Your task to perform on an android device: open app "ZOOM Cloud Meetings" (install if not already installed) and enter user name: "bauxite@icloud.com" and password: "dim" Image 0: 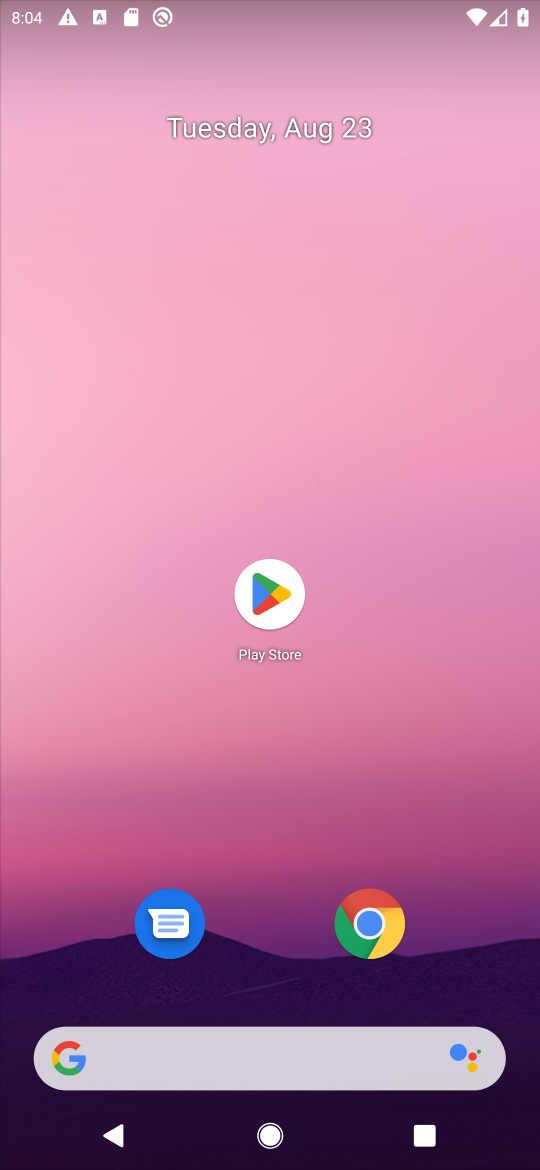
Step 0: click (264, 598)
Your task to perform on an android device: open app "ZOOM Cloud Meetings" (install if not already installed) and enter user name: "bauxite@icloud.com" and password: "dim" Image 1: 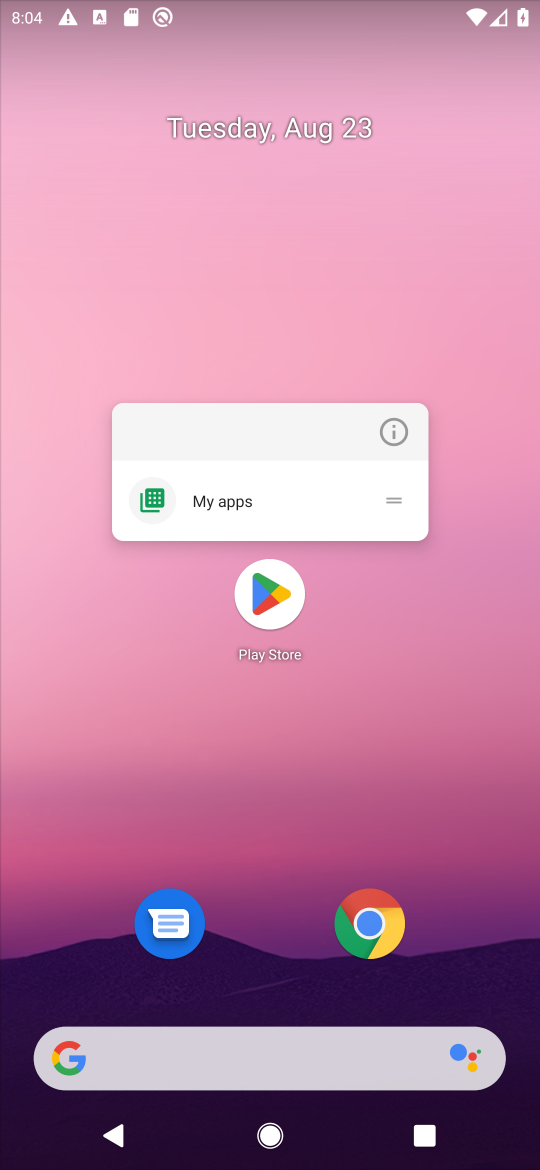
Step 1: click (271, 596)
Your task to perform on an android device: open app "ZOOM Cloud Meetings" (install if not already installed) and enter user name: "bauxite@icloud.com" and password: "dim" Image 2: 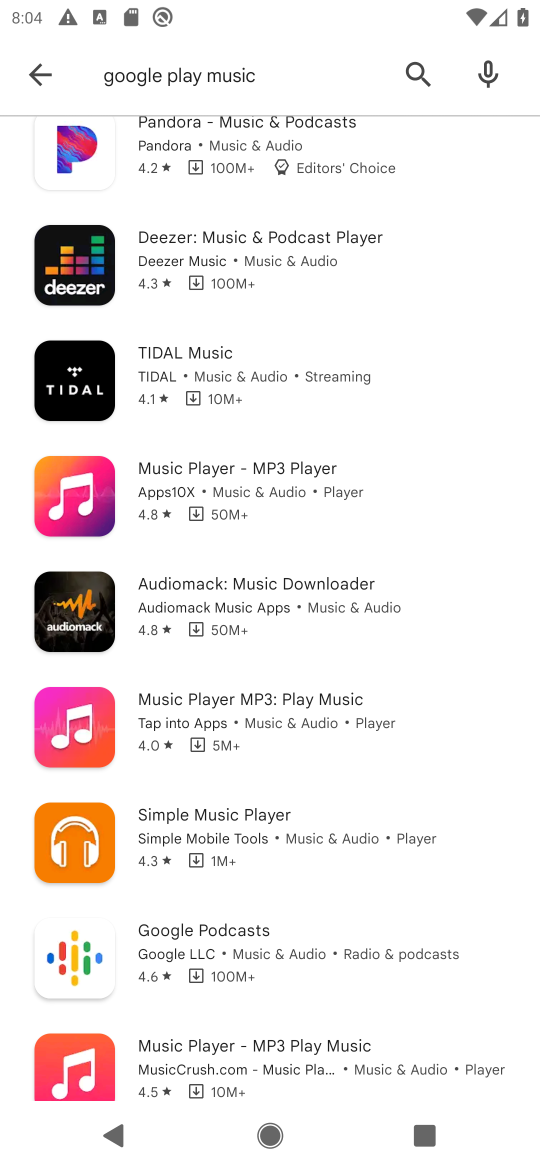
Step 2: click (407, 65)
Your task to perform on an android device: open app "ZOOM Cloud Meetings" (install if not already installed) and enter user name: "bauxite@icloud.com" and password: "dim" Image 3: 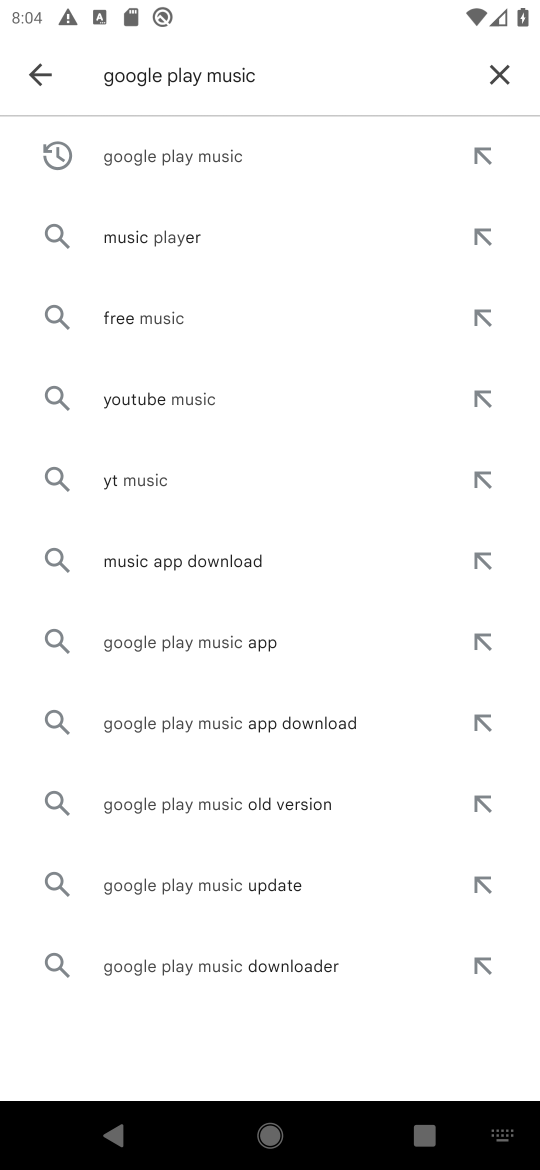
Step 3: click (497, 80)
Your task to perform on an android device: open app "ZOOM Cloud Meetings" (install if not already installed) and enter user name: "bauxite@icloud.com" and password: "dim" Image 4: 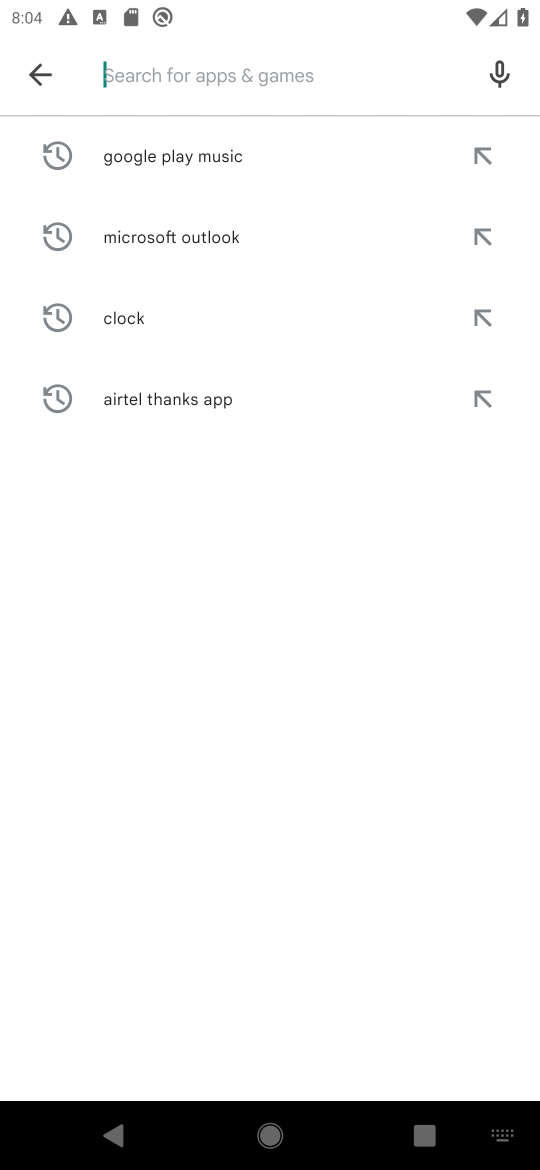
Step 4: type "ZOOM Cloud Meetings"
Your task to perform on an android device: open app "ZOOM Cloud Meetings" (install if not already installed) and enter user name: "bauxite@icloud.com" and password: "dim" Image 5: 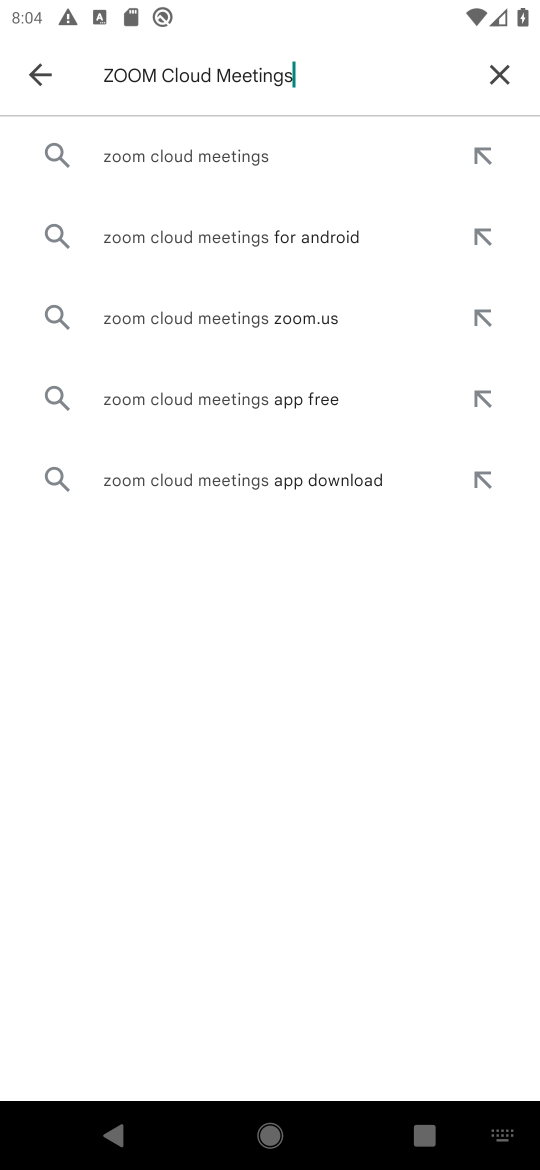
Step 5: click (207, 155)
Your task to perform on an android device: open app "ZOOM Cloud Meetings" (install if not already installed) and enter user name: "bauxite@icloud.com" and password: "dim" Image 6: 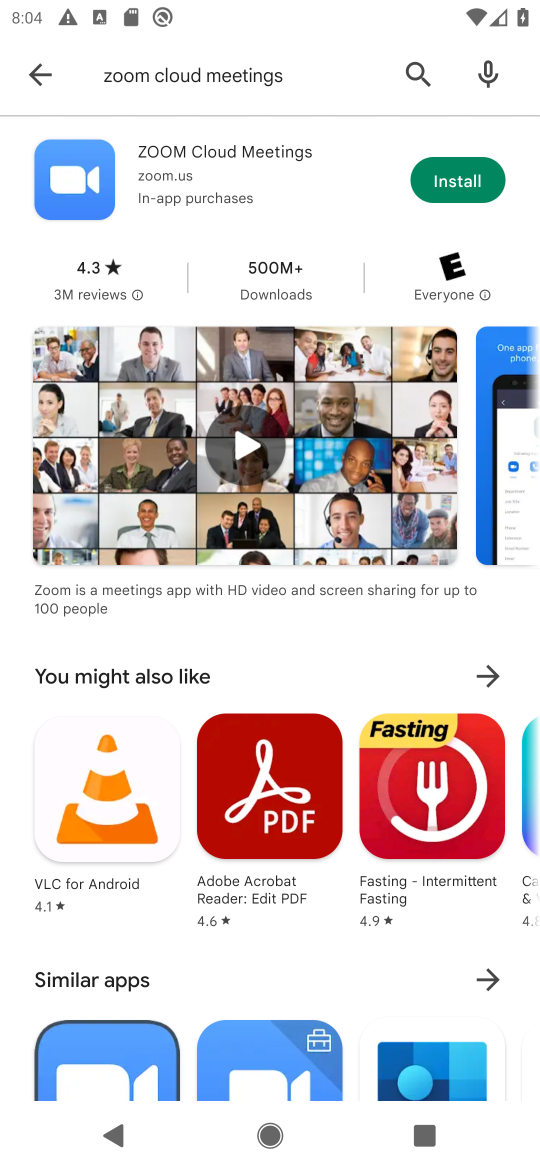
Step 6: click (463, 181)
Your task to perform on an android device: open app "ZOOM Cloud Meetings" (install if not already installed) and enter user name: "bauxite@icloud.com" and password: "dim" Image 7: 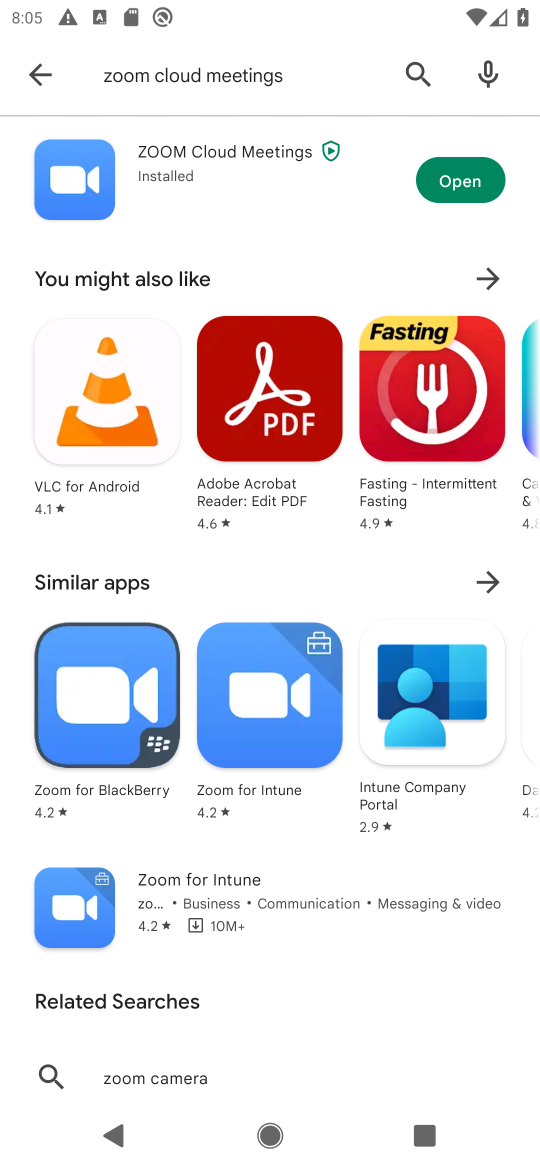
Step 7: click (469, 185)
Your task to perform on an android device: open app "ZOOM Cloud Meetings" (install if not already installed) and enter user name: "bauxite@icloud.com" and password: "dim" Image 8: 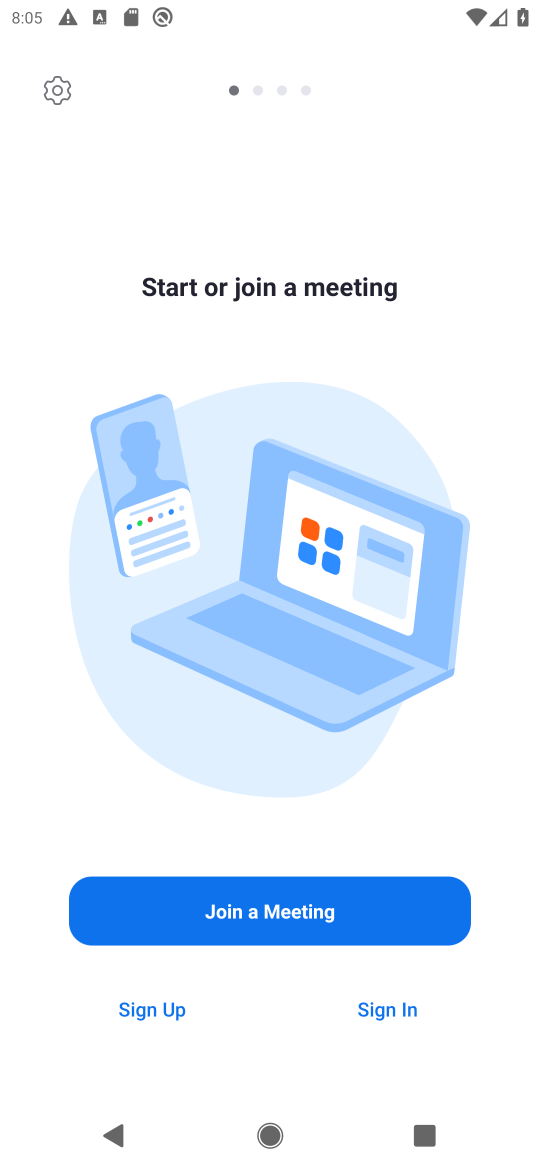
Step 8: click (396, 1000)
Your task to perform on an android device: open app "ZOOM Cloud Meetings" (install if not already installed) and enter user name: "bauxite@icloud.com" and password: "dim" Image 9: 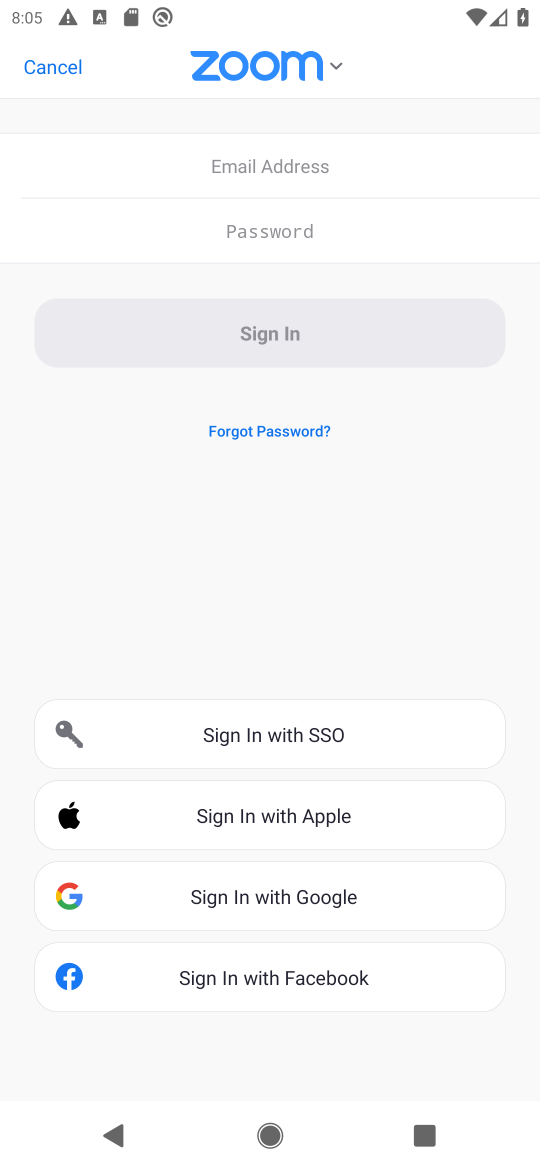
Step 9: click (275, 152)
Your task to perform on an android device: open app "ZOOM Cloud Meetings" (install if not already installed) and enter user name: "bauxite@icloud.com" and password: "dim" Image 10: 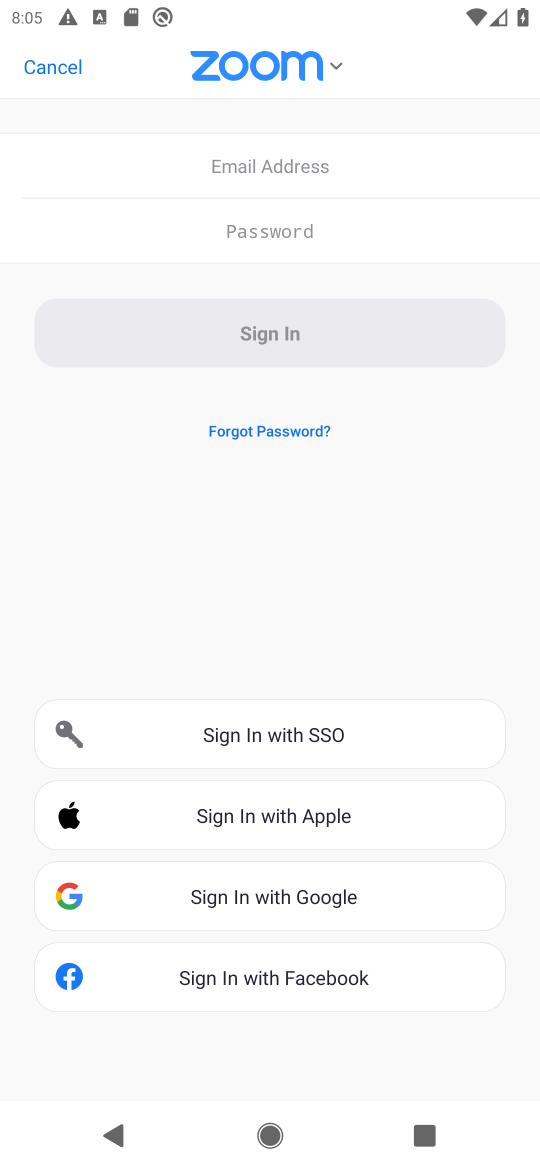
Step 10: click (271, 168)
Your task to perform on an android device: open app "ZOOM Cloud Meetings" (install if not already installed) and enter user name: "bauxite@icloud.com" and password: "dim" Image 11: 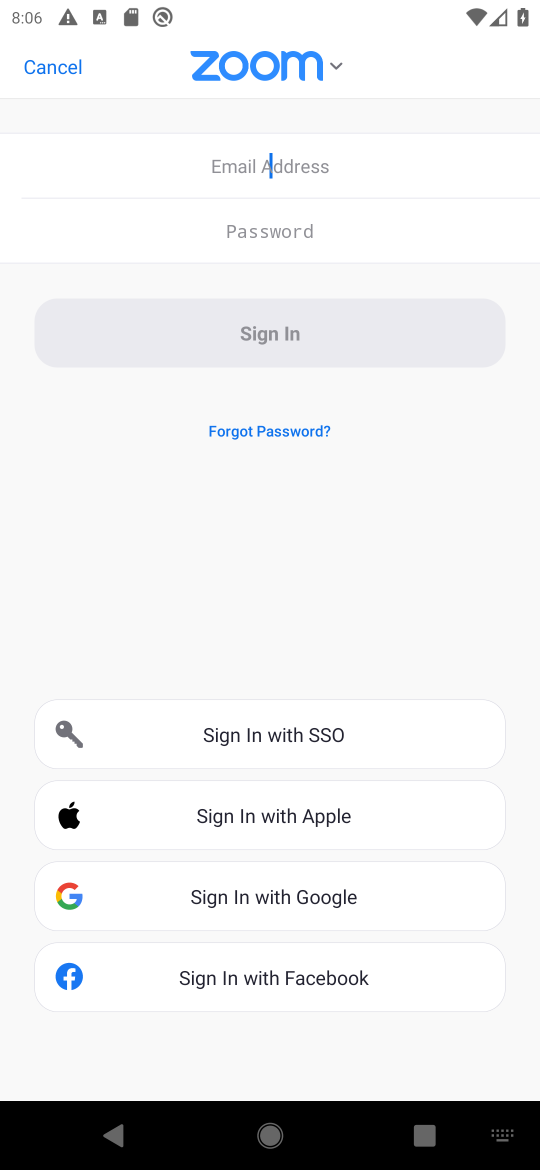
Step 11: type "bauxite@icloud.com"
Your task to perform on an android device: open app "ZOOM Cloud Meetings" (install if not already installed) and enter user name: "bauxite@icloud.com" and password: "dim" Image 12: 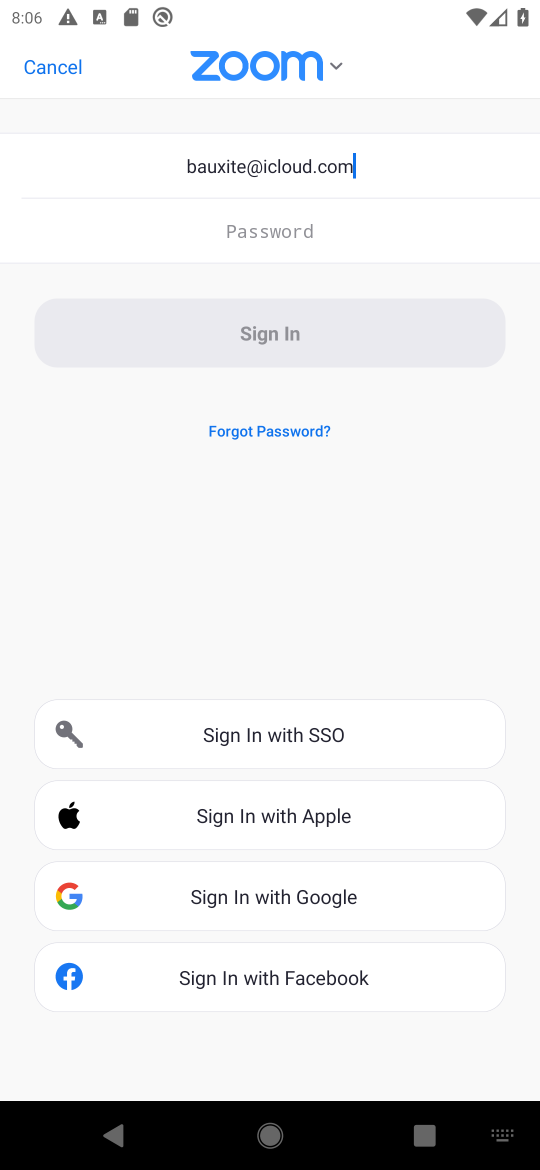
Step 12: click (272, 215)
Your task to perform on an android device: open app "ZOOM Cloud Meetings" (install if not already installed) and enter user name: "bauxite@icloud.com" and password: "dim" Image 13: 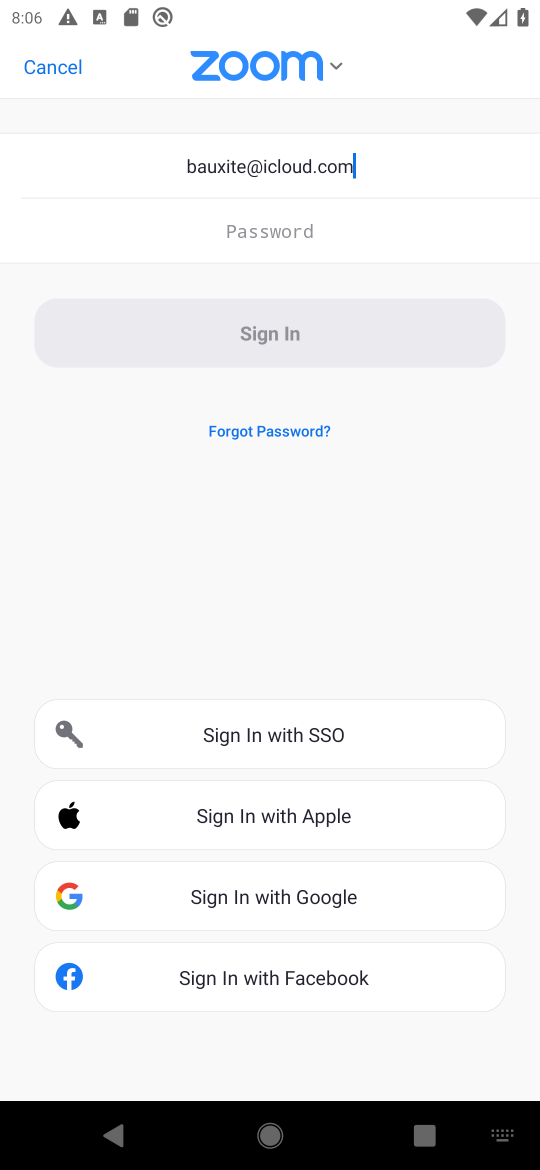
Step 13: click (269, 228)
Your task to perform on an android device: open app "ZOOM Cloud Meetings" (install if not already installed) and enter user name: "bauxite@icloud.com" and password: "dim" Image 14: 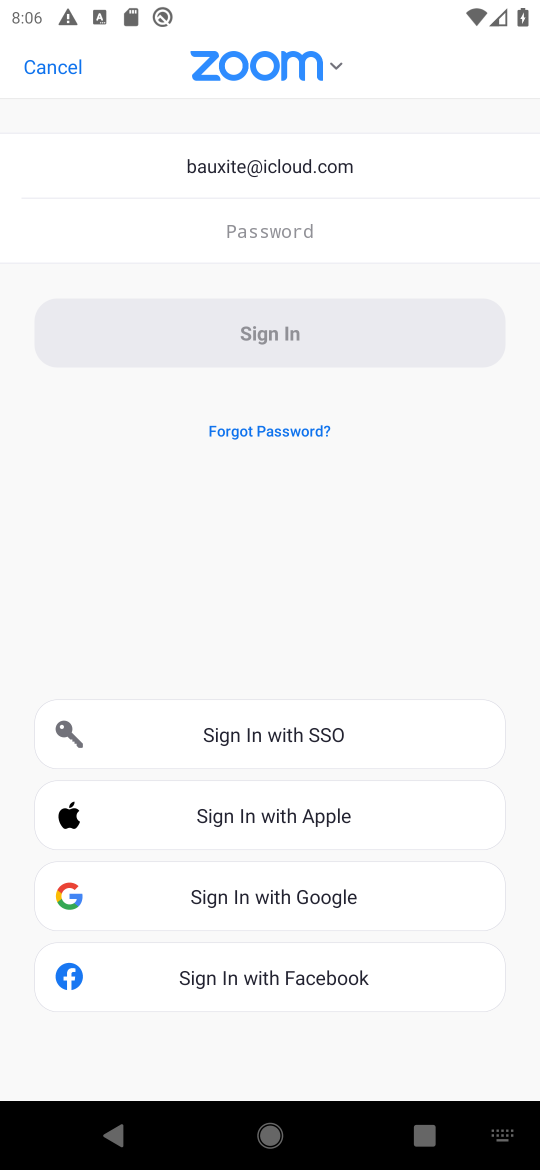
Step 14: type "dim"
Your task to perform on an android device: open app "ZOOM Cloud Meetings" (install if not already installed) and enter user name: "bauxite@icloud.com" and password: "dim" Image 15: 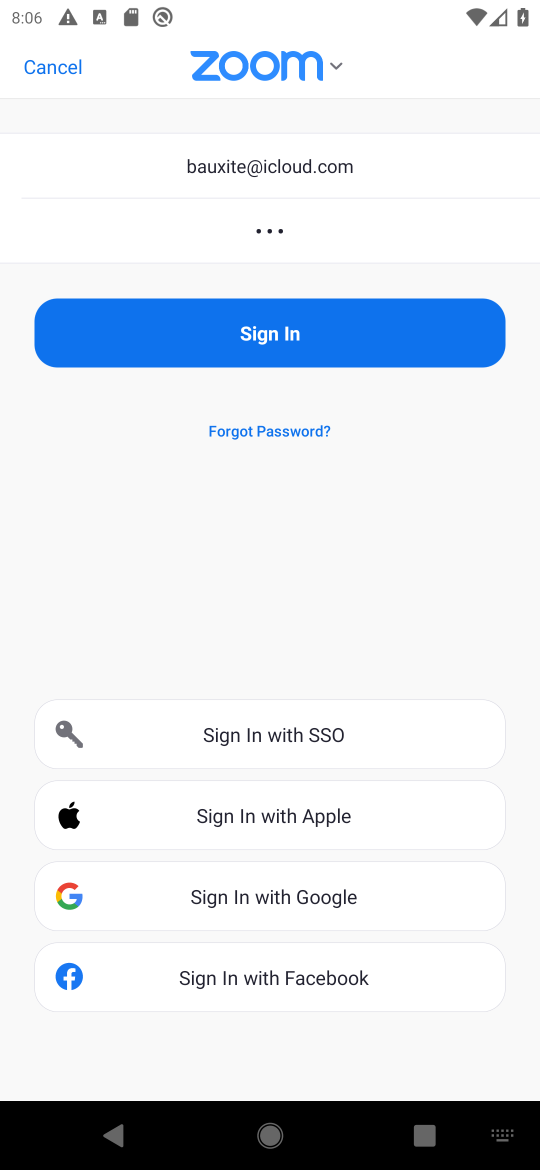
Step 15: task complete